Your task to perform on an android device: Do I have any events this weekend? Image 0: 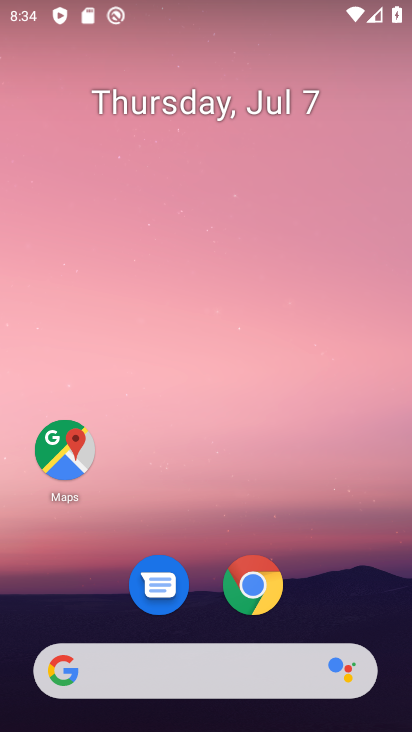
Step 0: drag from (247, 473) to (213, 27)
Your task to perform on an android device: Do I have any events this weekend? Image 1: 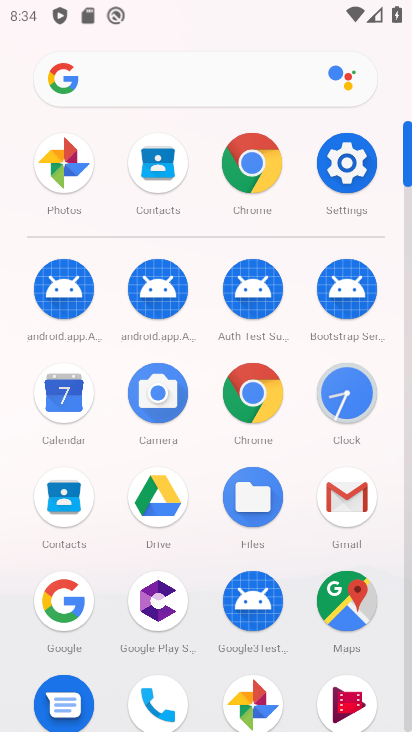
Step 1: click (77, 391)
Your task to perform on an android device: Do I have any events this weekend? Image 2: 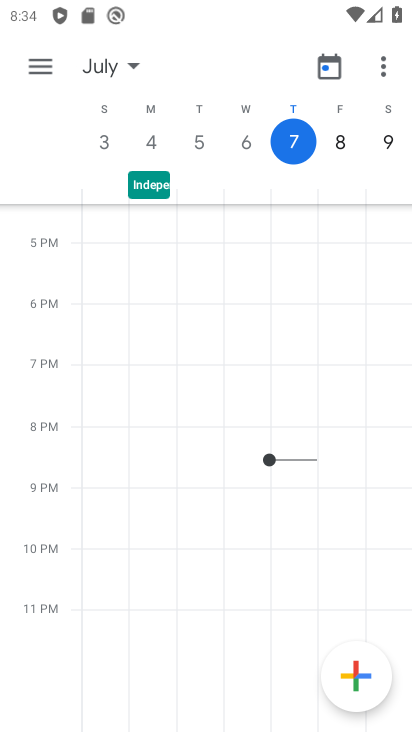
Step 2: click (386, 123)
Your task to perform on an android device: Do I have any events this weekend? Image 3: 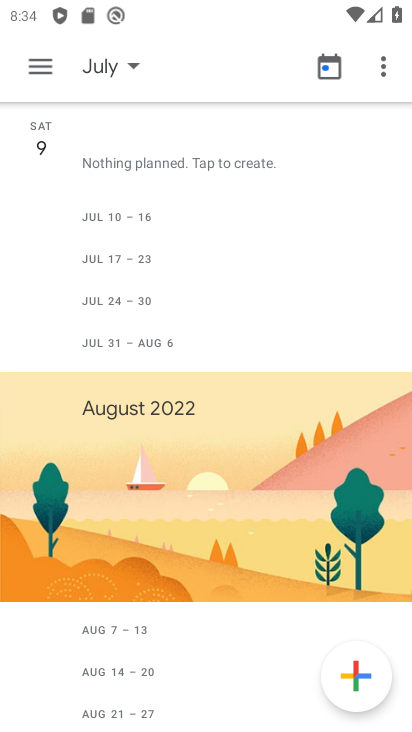
Step 3: click (43, 59)
Your task to perform on an android device: Do I have any events this weekend? Image 4: 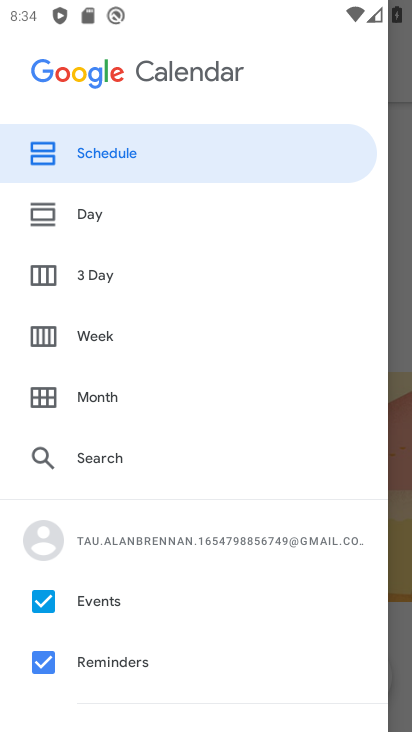
Step 4: click (135, 146)
Your task to perform on an android device: Do I have any events this weekend? Image 5: 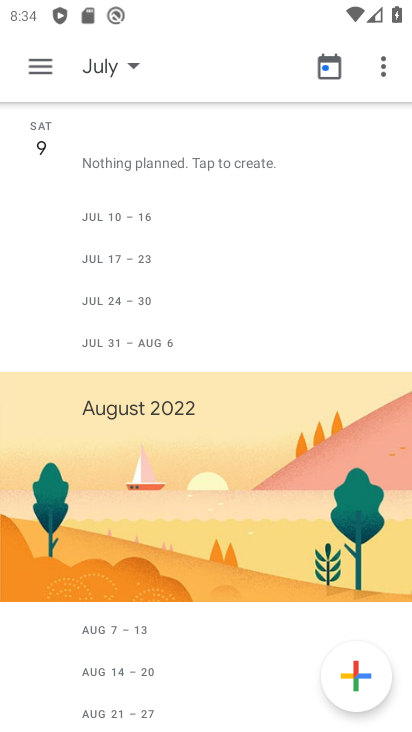
Step 5: task complete